Your task to perform on an android device: turn off data saver in the chrome app Image 0: 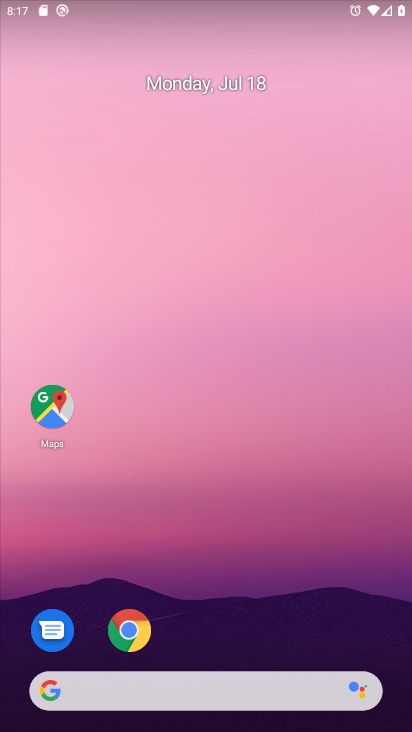
Step 0: click (142, 630)
Your task to perform on an android device: turn off data saver in the chrome app Image 1: 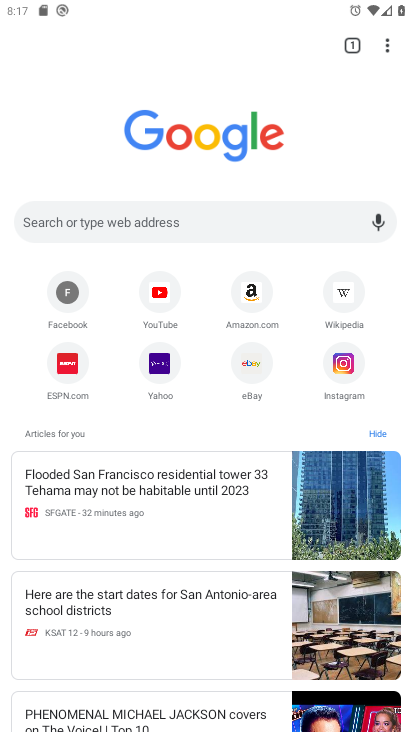
Step 1: click (385, 46)
Your task to perform on an android device: turn off data saver in the chrome app Image 2: 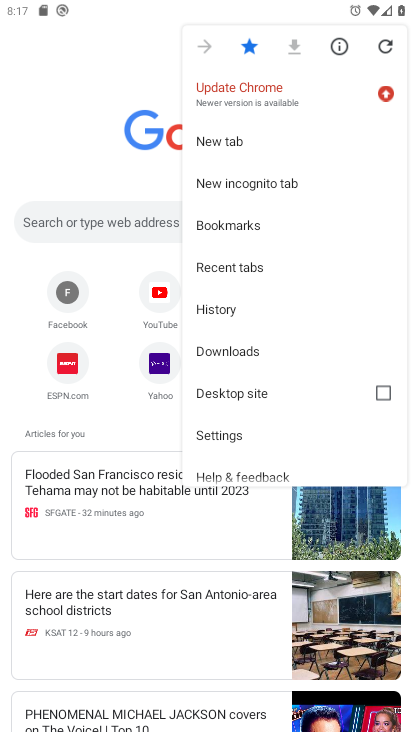
Step 2: click (220, 426)
Your task to perform on an android device: turn off data saver in the chrome app Image 3: 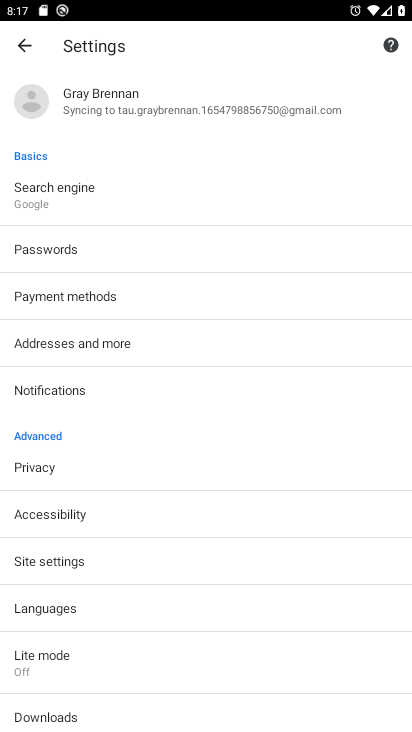
Step 3: click (74, 655)
Your task to perform on an android device: turn off data saver in the chrome app Image 4: 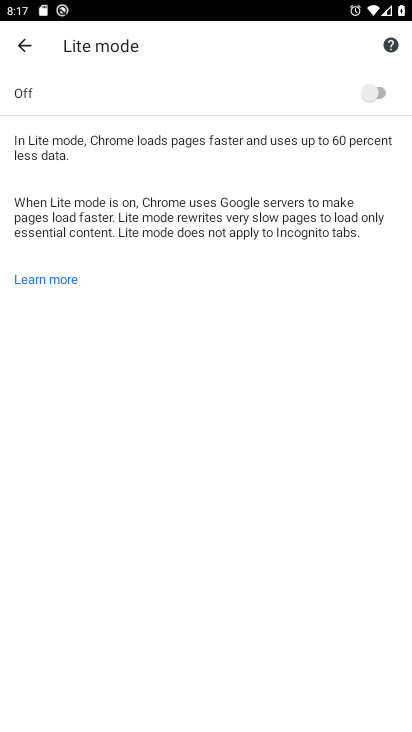
Step 4: task complete